Your task to perform on an android device: When is my next appointment? Image 0: 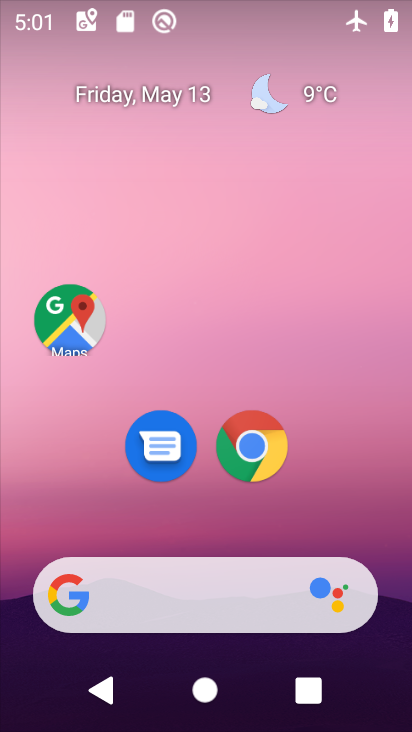
Step 0: drag from (227, 358) to (248, 3)
Your task to perform on an android device: When is my next appointment? Image 1: 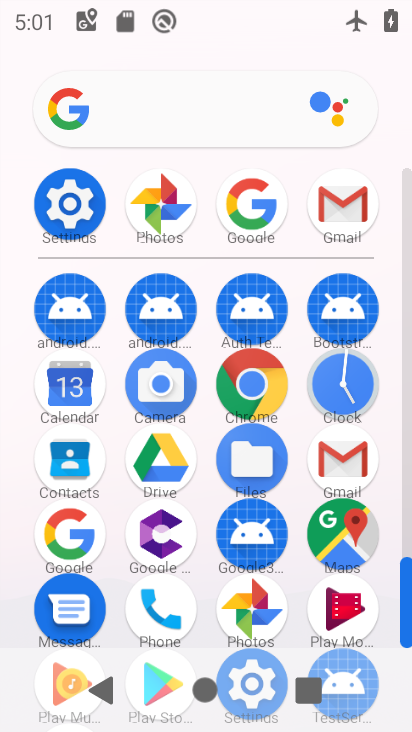
Step 1: click (84, 366)
Your task to perform on an android device: When is my next appointment? Image 2: 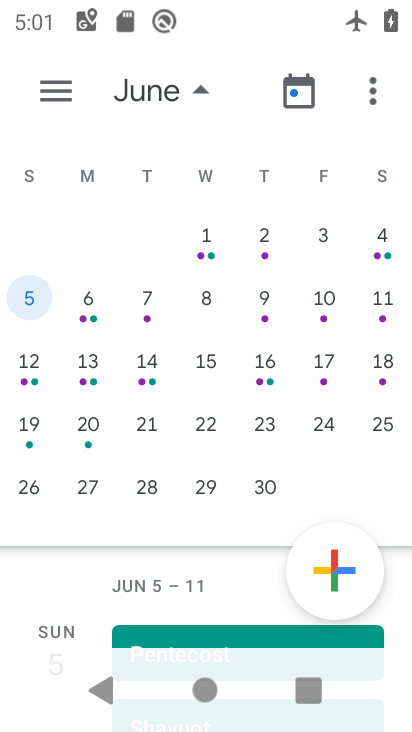
Step 2: drag from (57, 321) to (404, 404)
Your task to perform on an android device: When is my next appointment? Image 3: 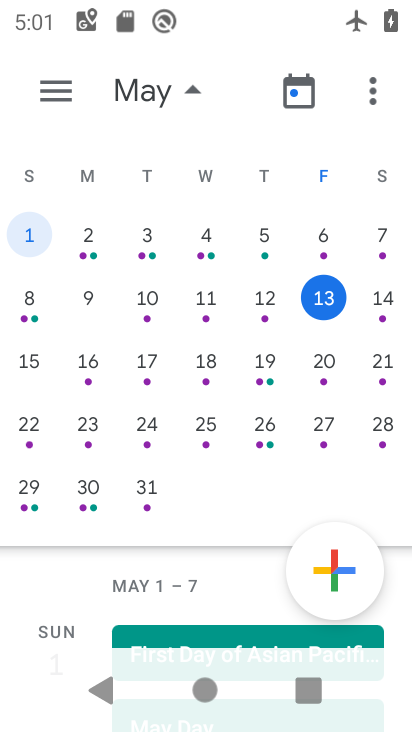
Step 3: click (317, 287)
Your task to perform on an android device: When is my next appointment? Image 4: 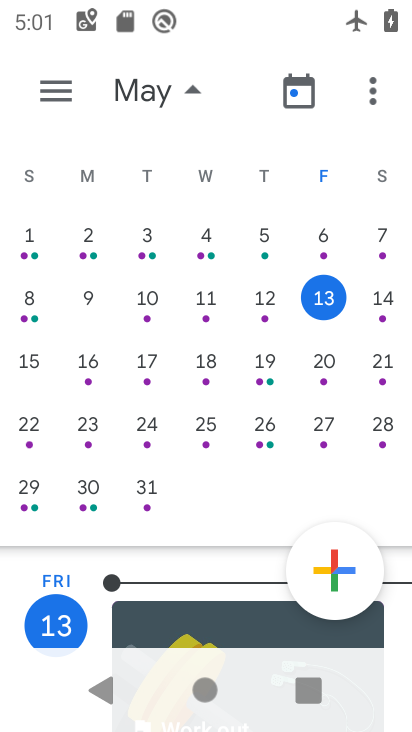
Step 4: task complete